Your task to perform on an android device: What's the weather going to be tomorrow? Image 0: 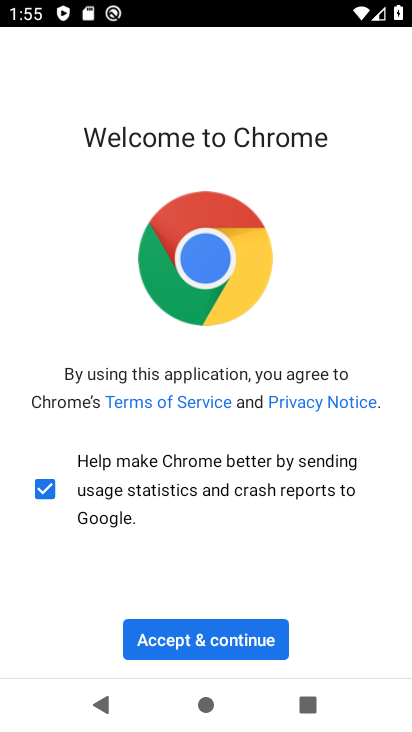
Step 0: press home button
Your task to perform on an android device: What's the weather going to be tomorrow? Image 1: 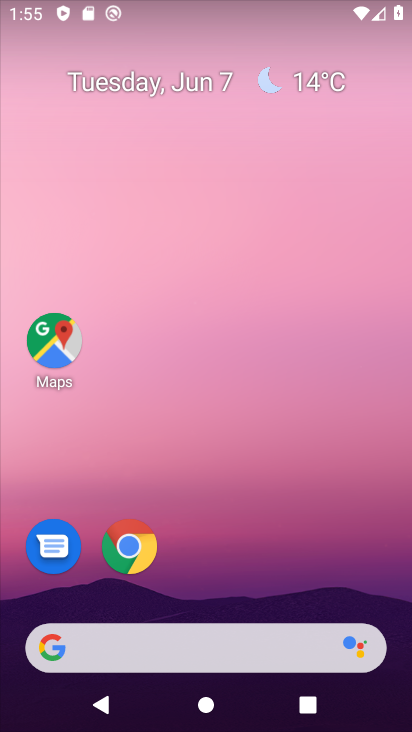
Step 1: click (331, 87)
Your task to perform on an android device: What's the weather going to be tomorrow? Image 2: 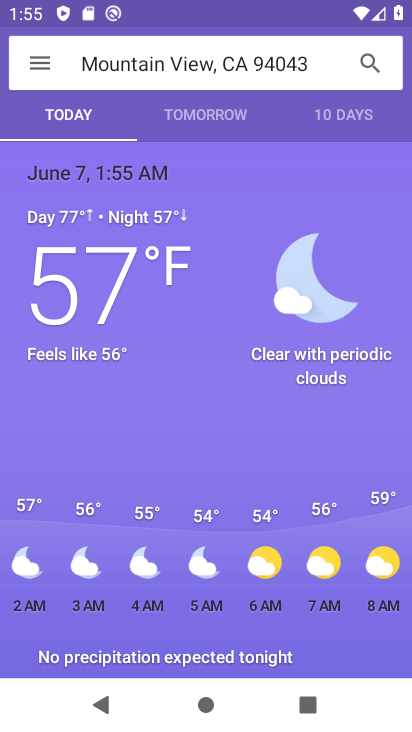
Step 2: task complete